Your task to perform on an android device: Open Amazon Image 0: 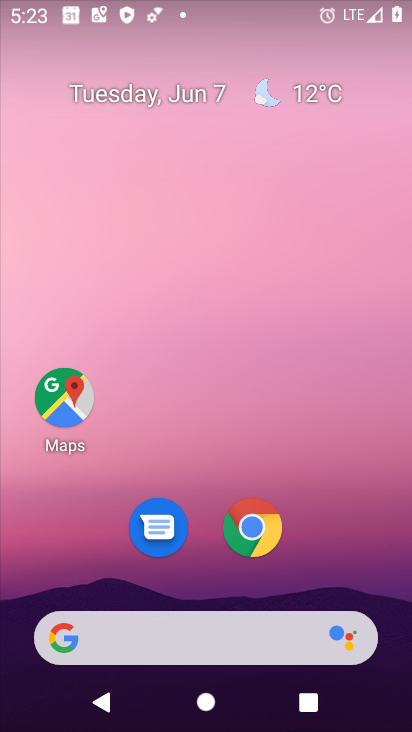
Step 0: click (254, 524)
Your task to perform on an android device: Open Amazon Image 1: 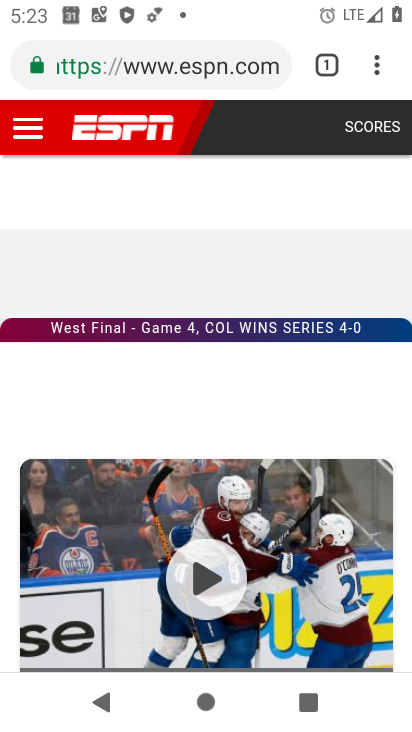
Step 1: click (244, 74)
Your task to perform on an android device: Open Amazon Image 2: 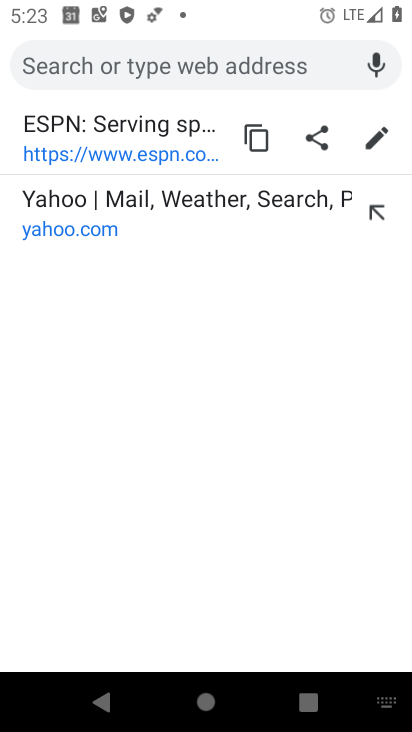
Step 2: type "Amazon"
Your task to perform on an android device: Open Amazon Image 3: 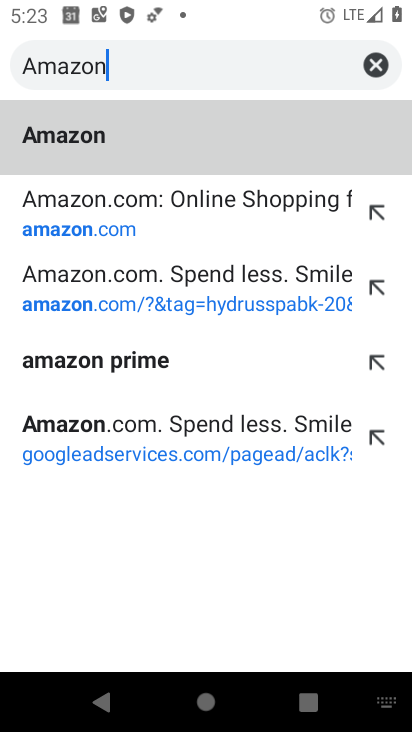
Step 3: click (94, 137)
Your task to perform on an android device: Open Amazon Image 4: 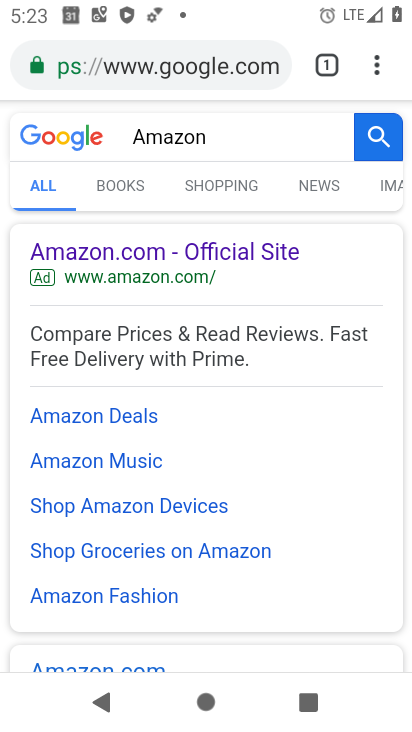
Step 4: click (118, 245)
Your task to perform on an android device: Open Amazon Image 5: 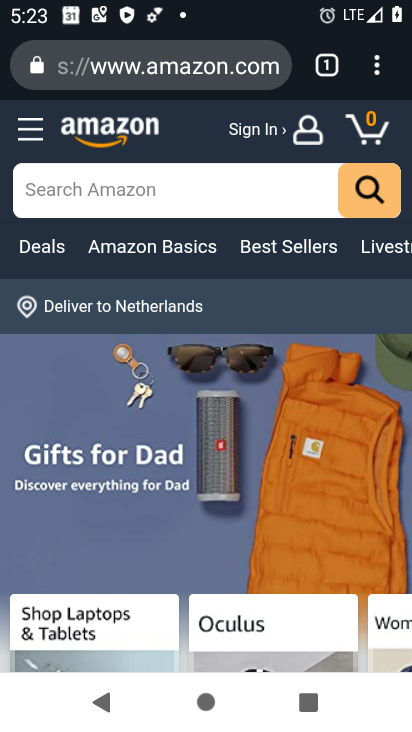
Step 5: task complete